Your task to perform on an android device: Go to Yahoo.com Image 0: 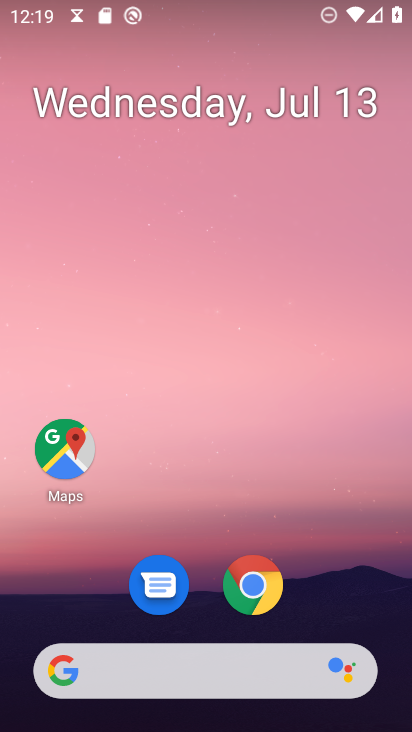
Step 0: click (246, 598)
Your task to perform on an android device: Go to Yahoo.com Image 1: 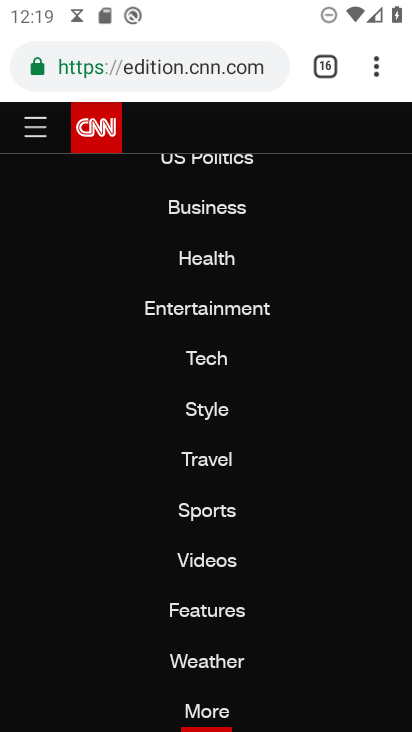
Step 1: drag from (382, 65) to (239, 143)
Your task to perform on an android device: Go to Yahoo.com Image 2: 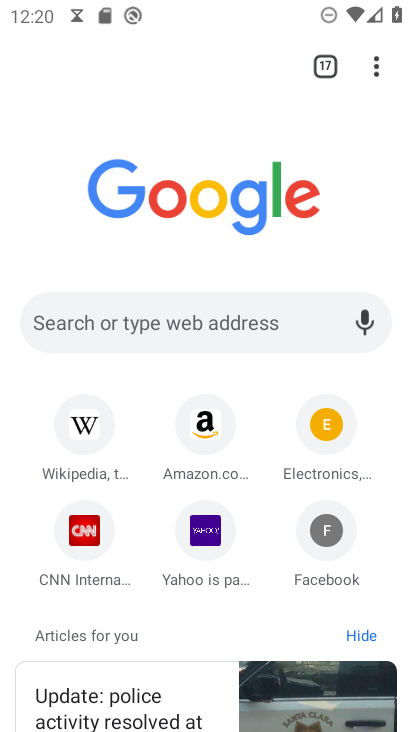
Step 2: click (207, 531)
Your task to perform on an android device: Go to Yahoo.com Image 3: 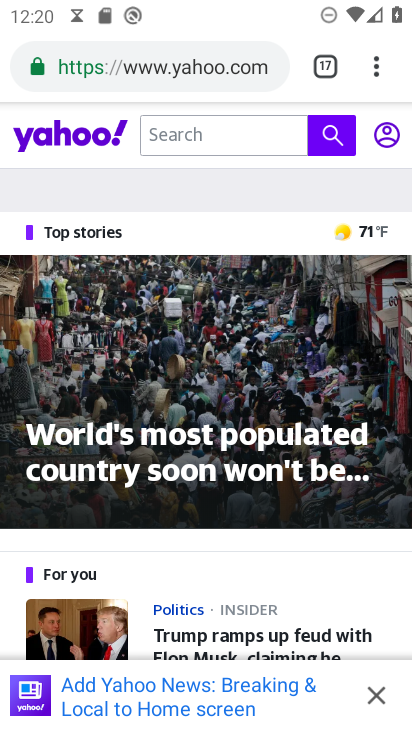
Step 3: task complete